Your task to perform on an android device: Go to network settings Image 0: 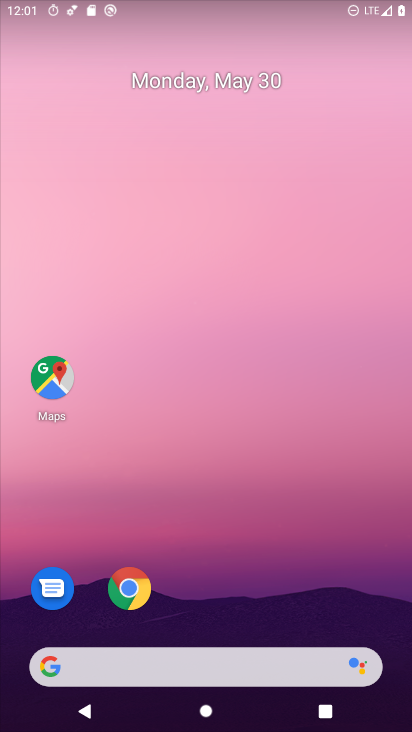
Step 0: drag from (219, 603) to (258, 210)
Your task to perform on an android device: Go to network settings Image 1: 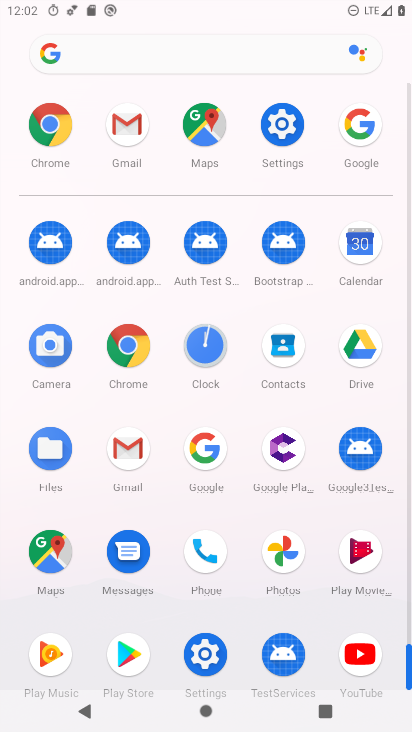
Step 1: click (208, 653)
Your task to perform on an android device: Go to network settings Image 2: 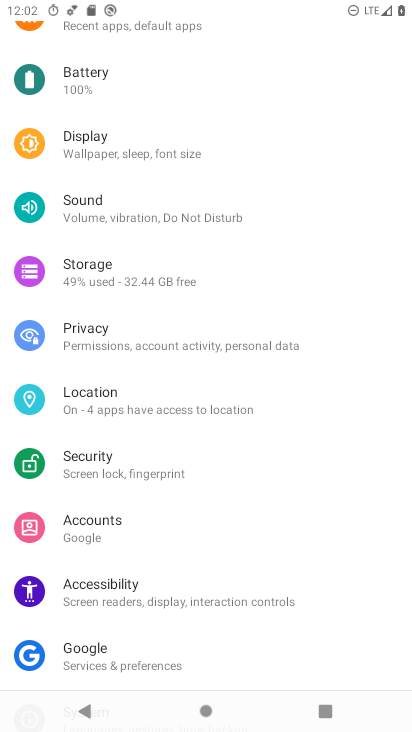
Step 2: drag from (163, 106) to (296, 665)
Your task to perform on an android device: Go to network settings Image 3: 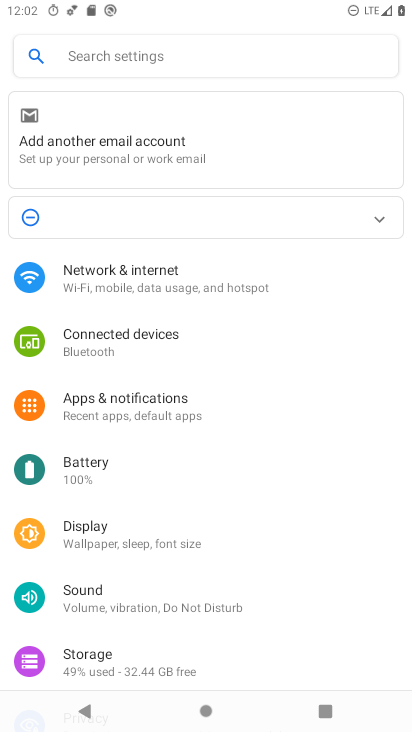
Step 3: click (204, 290)
Your task to perform on an android device: Go to network settings Image 4: 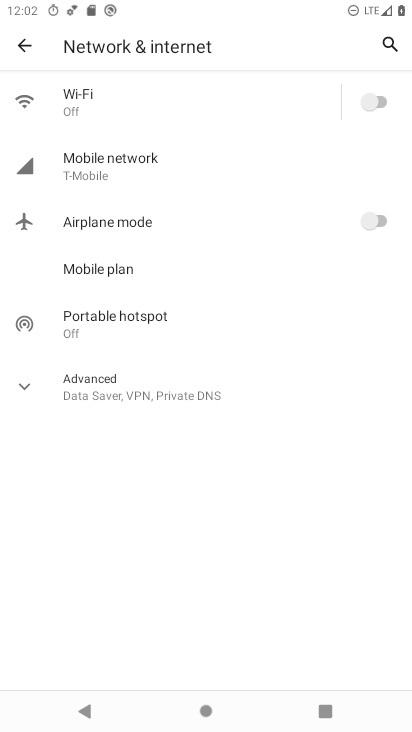
Step 4: task complete